Your task to perform on an android device: add a contact in the contacts app Image 0: 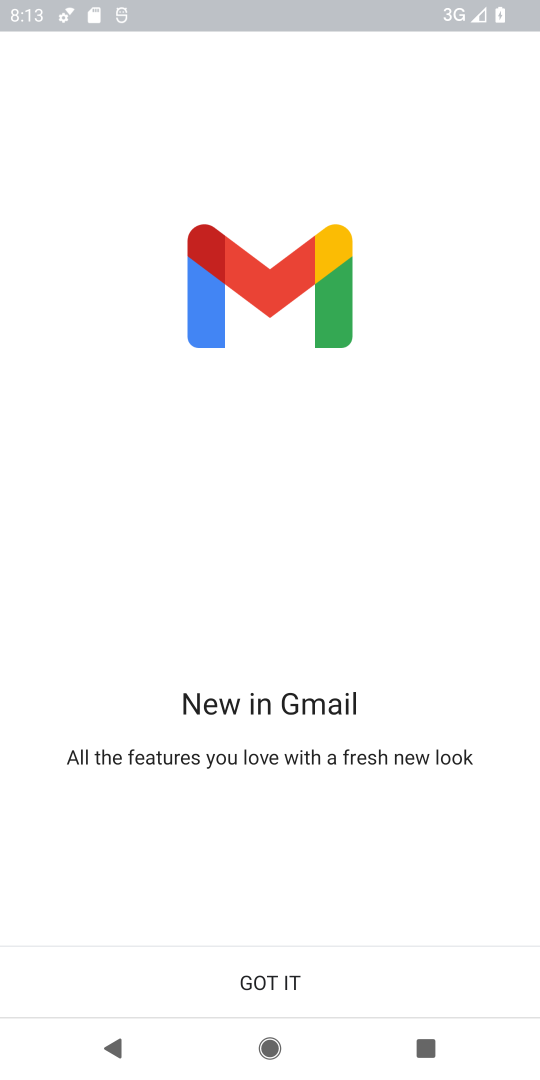
Step 0: press home button
Your task to perform on an android device: add a contact in the contacts app Image 1: 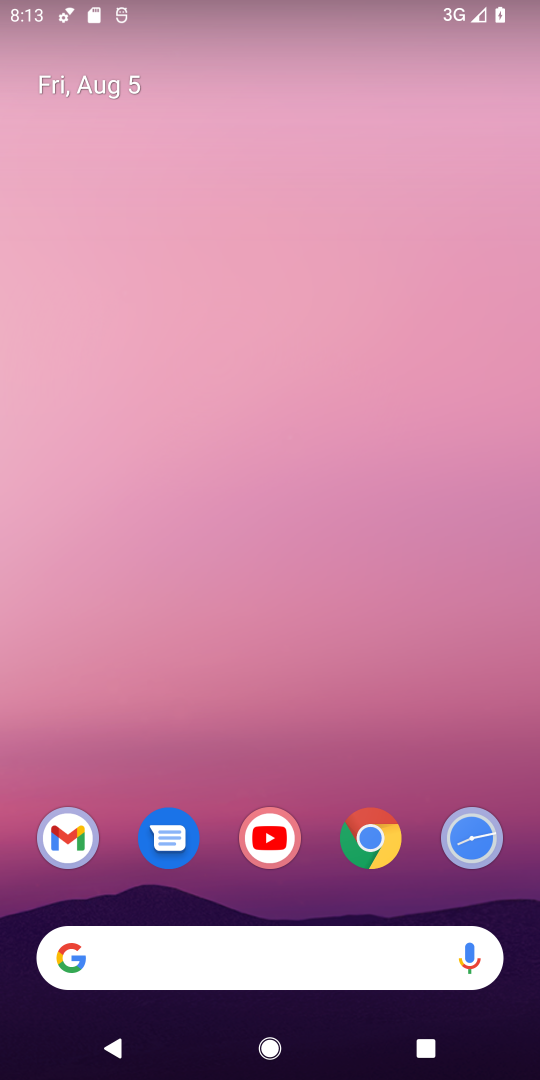
Step 1: drag from (265, 771) to (260, 484)
Your task to perform on an android device: add a contact in the contacts app Image 2: 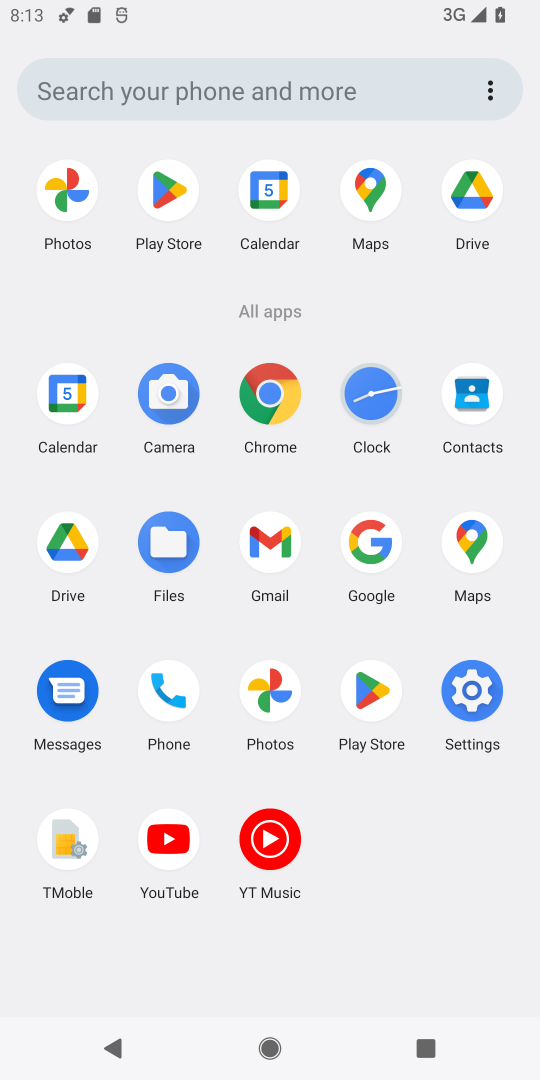
Step 2: click (162, 695)
Your task to perform on an android device: add a contact in the contacts app Image 3: 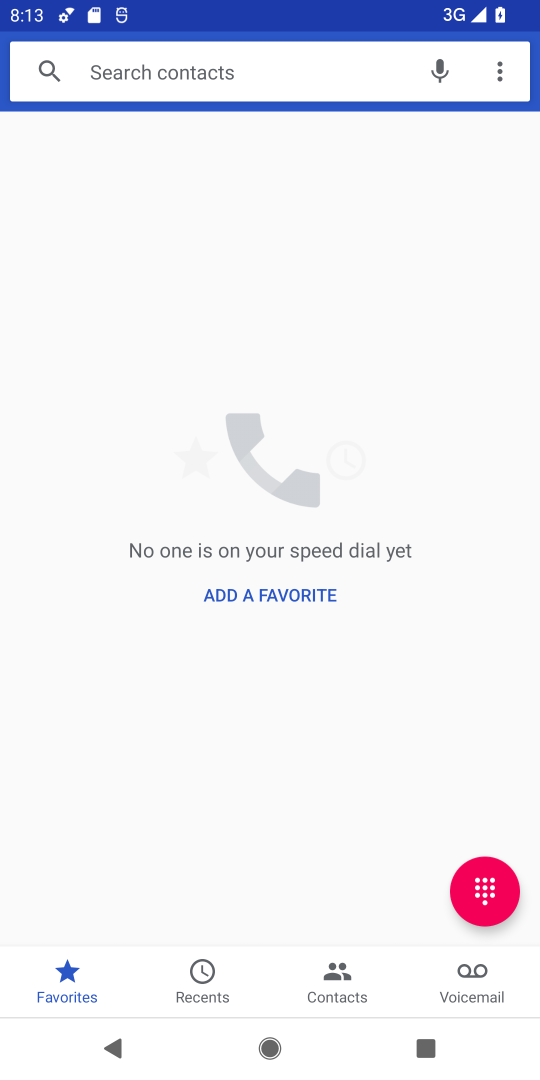
Step 3: click (330, 987)
Your task to perform on an android device: add a contact in the contacts app Image 4: 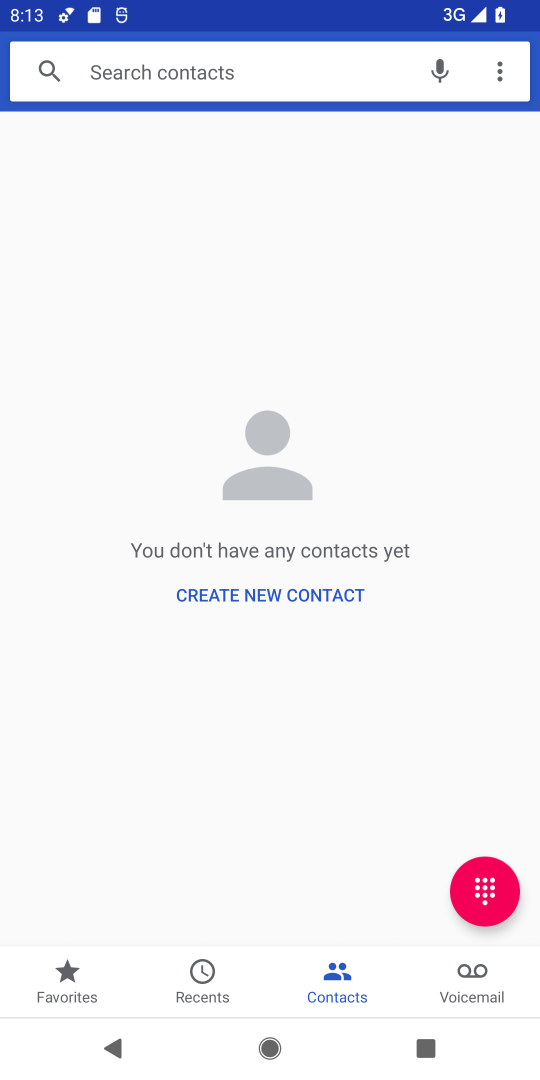
Step 4: click (256, 589)
Your task to perform on an android device: add a contact in the contacts app Image 5: 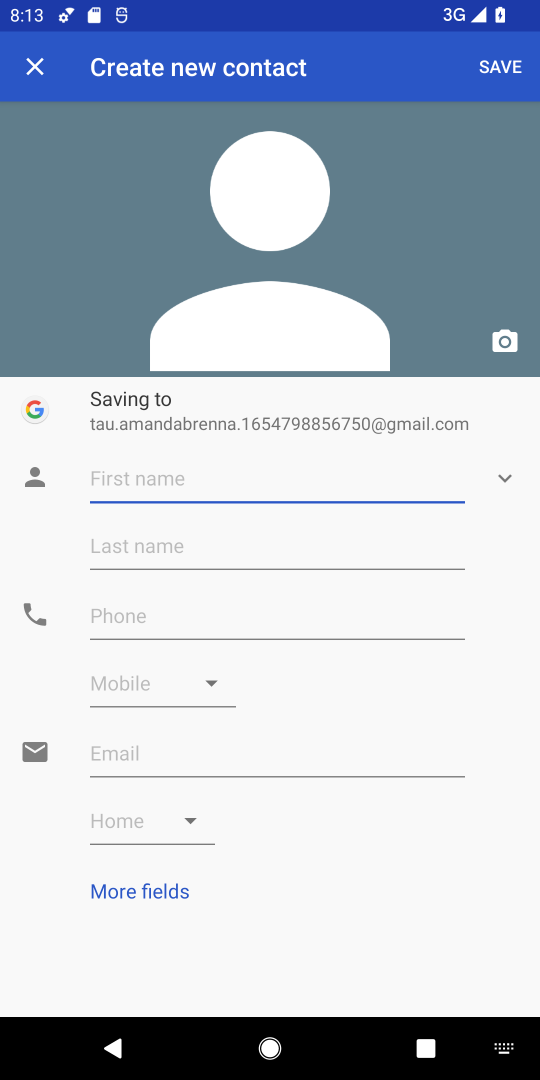
Step 5: type "asddgdfgd"
Your task to perform on an android device: add a contact in the contacts app Image 6: 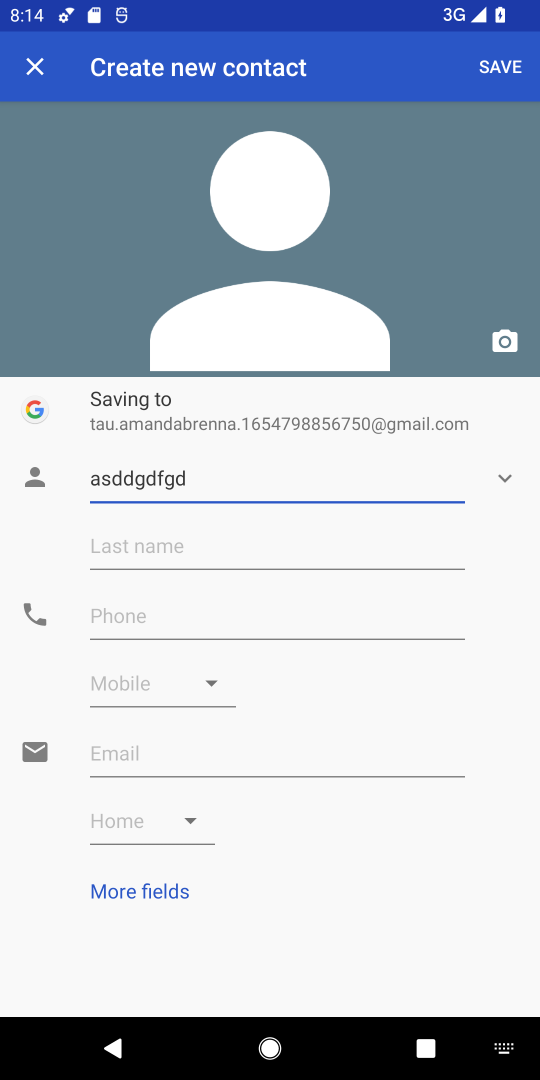
Step 6: click (249, 612)
Your task to perform on an android device: add a contact in the contacts app Image 7: 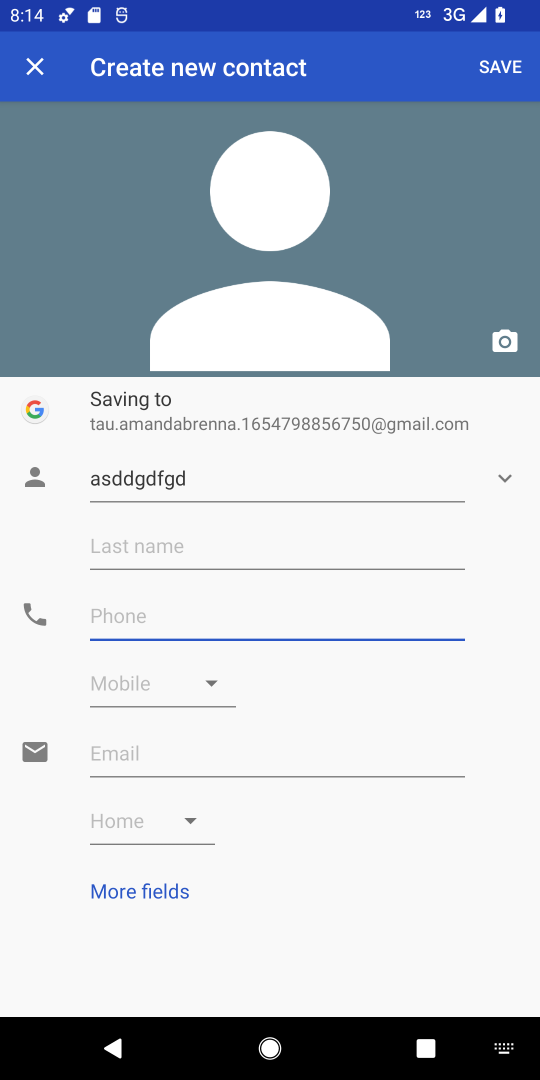
Step 7: type "34534534"
Your task to perform on an android device: add a contact in the contacts app Image 8: 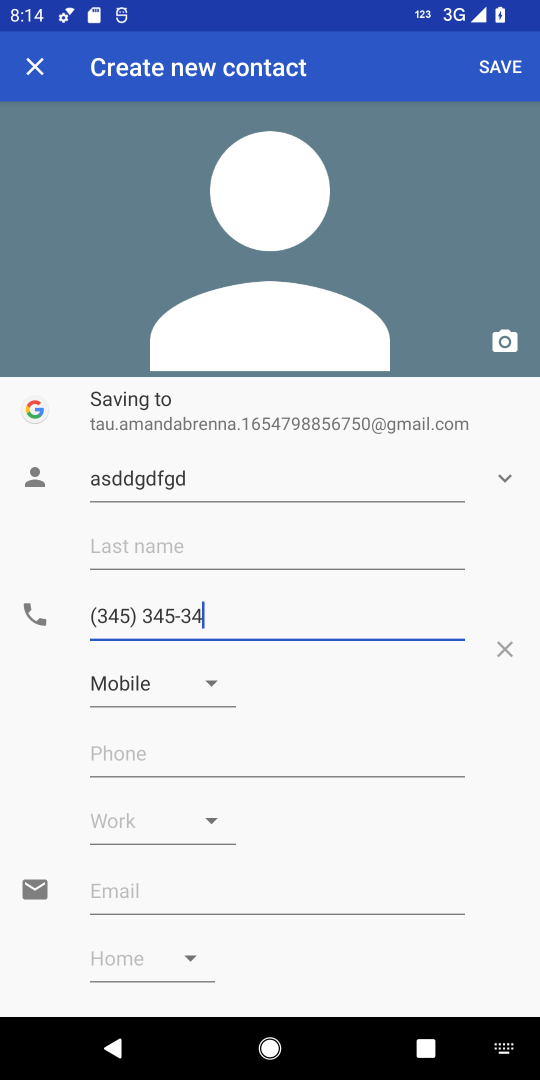
Step 8: click (484, 67)
Your task to perform on an android device: add a contact in the contacts app Image 9: 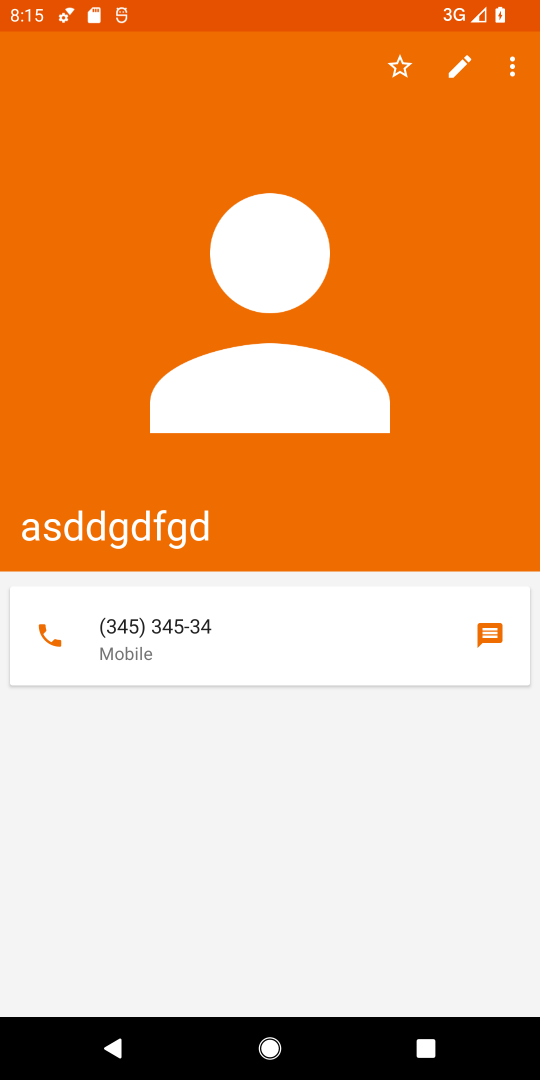
Step 9: task complete